Your task to perform on an android device: change notification settings in the gmail app Image 0: 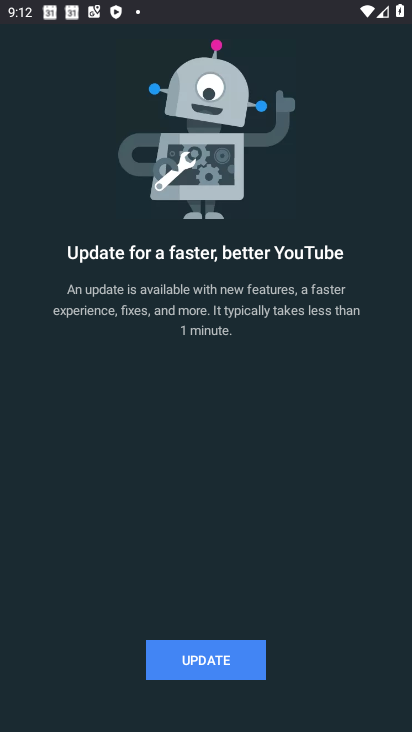
Step 0: press home button
Your task to perform on an android device: change notification settings in the gmail app Image 1: 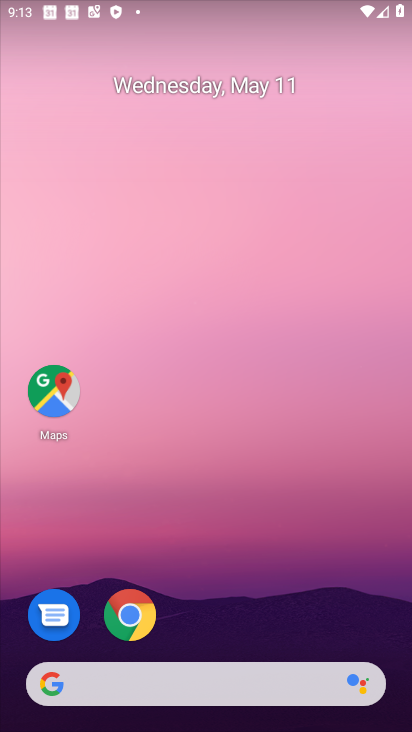
Step 1: drag from (23, 591) to (206, 239)
Your task to perform on an android device: change notification settings in the gmail app Image 2: 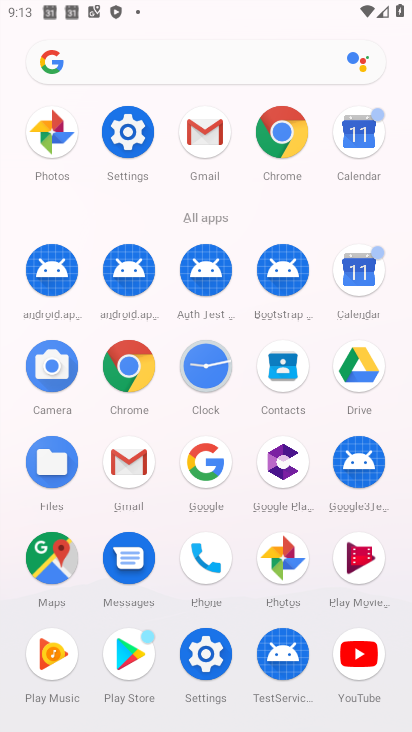
Step 2: click (139, 121)
Your task to perform on an android device: change notification settings in the gmail app Image 3: 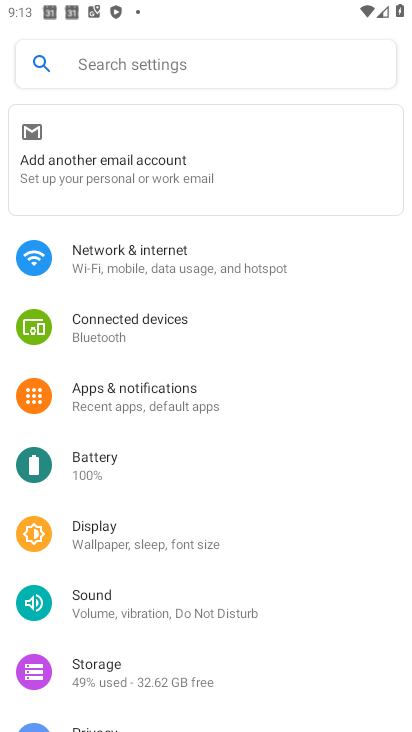
Step 3: click (105, 403)
Your task to perform on an android device: change notification settings in the gmail app Image 4: 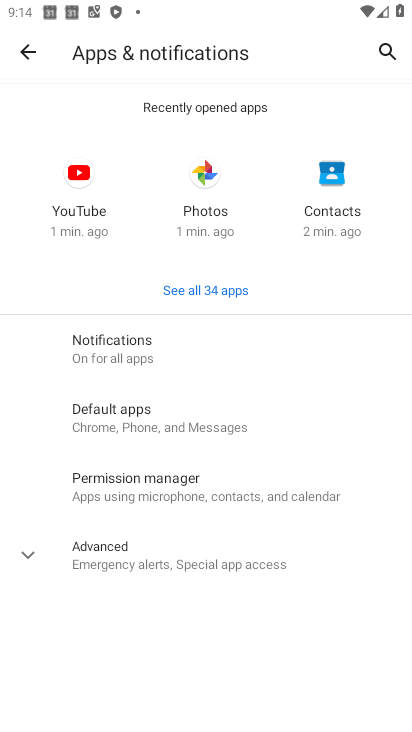
Step 4: click (120, 329)
Your task to perform on an android device: change notification settings in the gmail app Image 5: 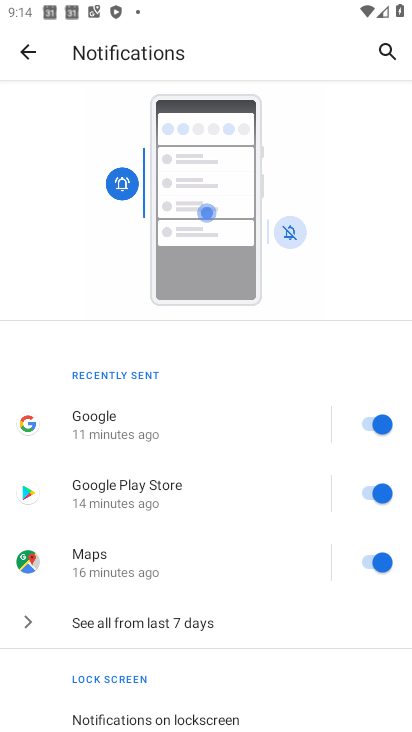
Step 5: click (386, 421)
Your task to perform on an android device: change notification settings in the gmail app Image 6: 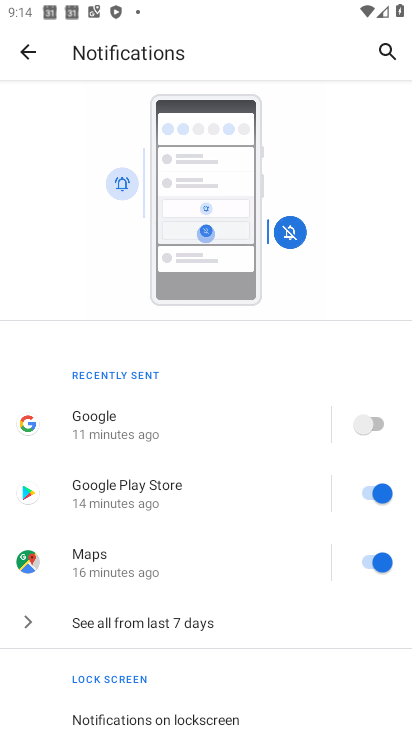
Step 6: task complete